Your task to perform on an android device: Go to settings Image 0: 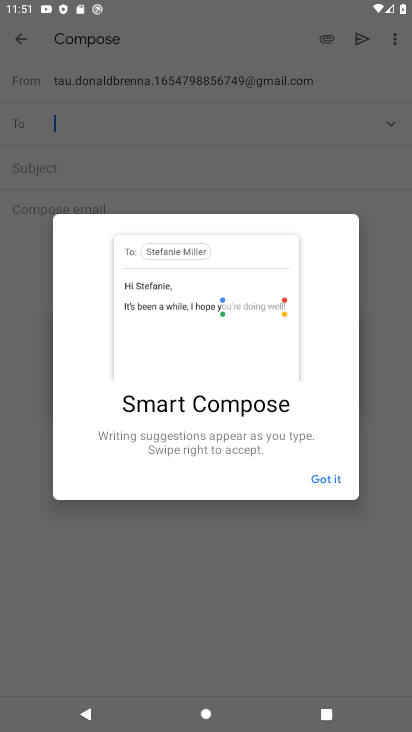
Step 0: press home button
Your task to perform on an android device: Go to settings Image 1: 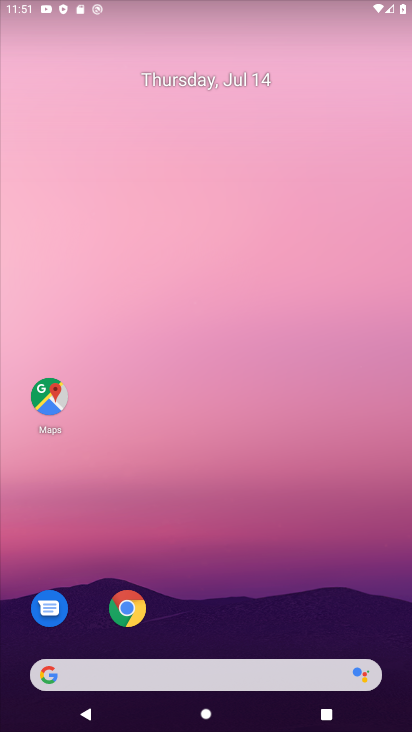
Step 1: drag from (207, 616) to (235, 115)
Your task to perform on an android device: Go to settings Image 2: 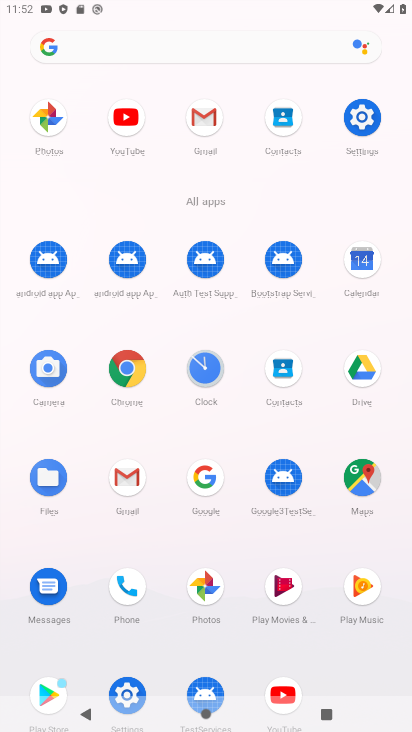
Step 2: click (358, 119)
Your task to perform on an android device: Go to settings Image 3: 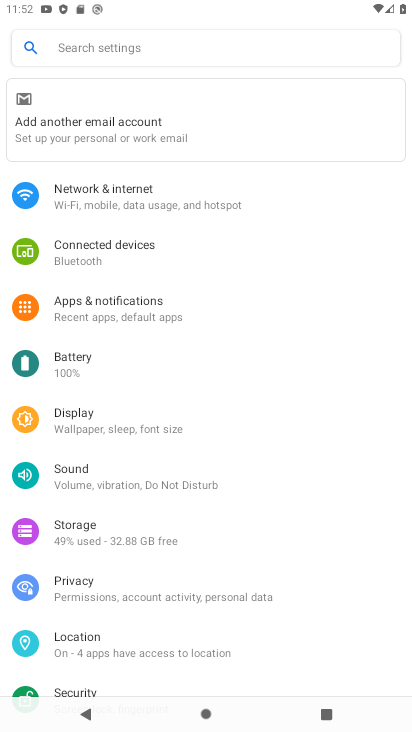
Step 3: task complete